Your task to perform on an android device: Go to Yahoo.com Image 0: 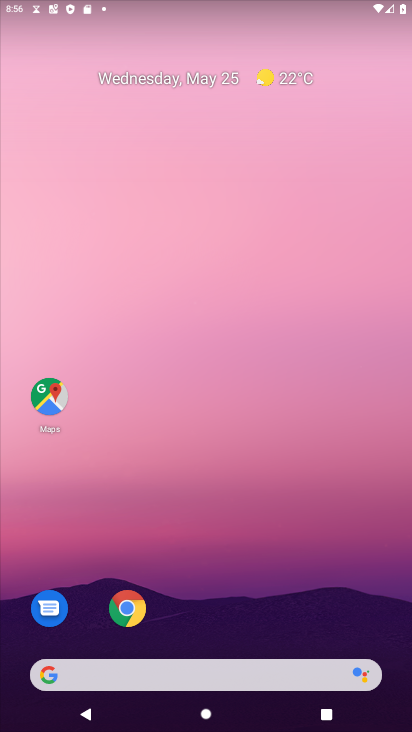
Step 0: click (127, 609)
Your task to perform on an android device: Go to Yahoo.com Image 1: 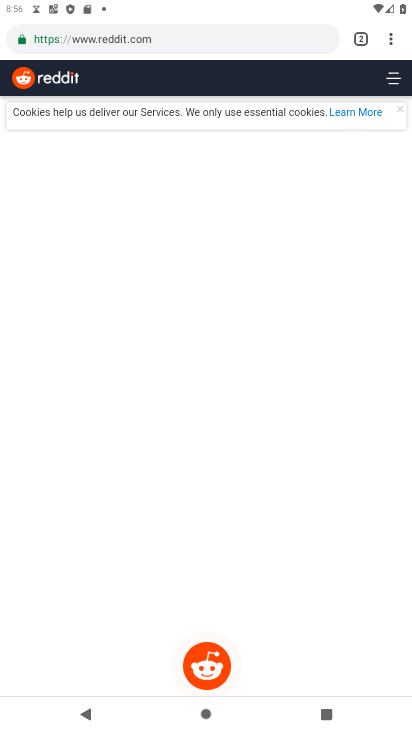
Step 1: click (248, 40)
Your task to perform on an android device: Go to Yahoo.com Image 2: 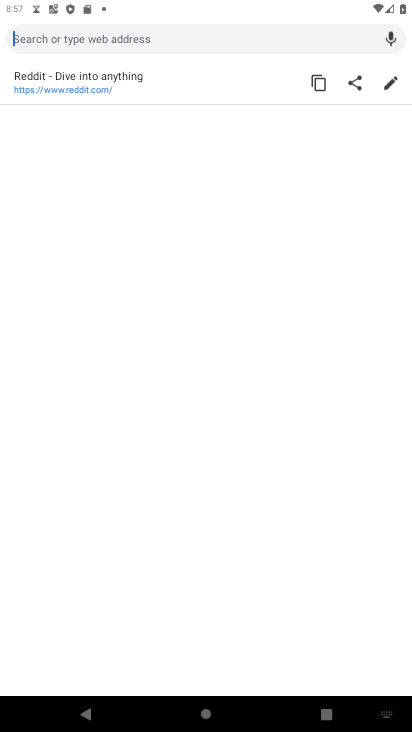
Step 2: type "Yahoo.com"
Your task to perform on an android device: Go to Yahoo.com Image 3: 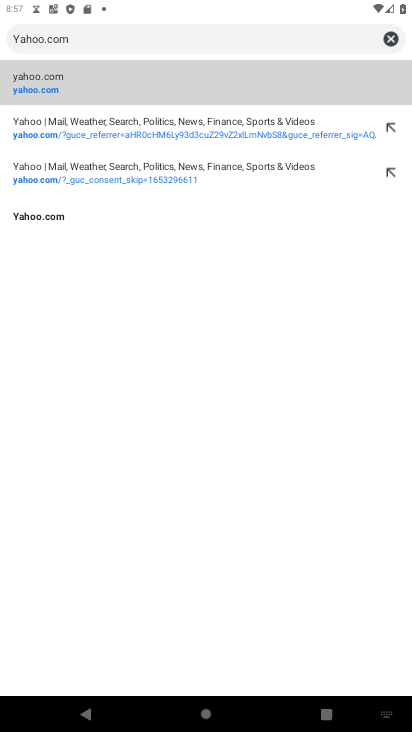
Step 3: click (125, 93)
Your task to perform on an android device: Go to Yahoo.com Image 4: 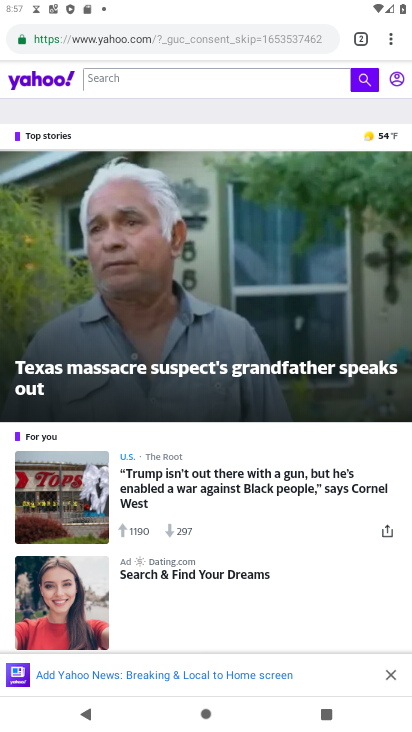
Step 4: task complete